Your task to perform on an android device: change the upload size in google photos Image 0: 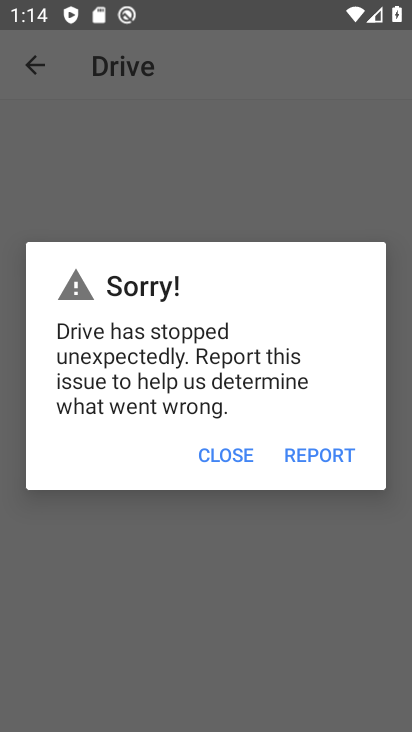
Step 0: press home button
Your task to perform on an android device: change the upload size in google photos Image 1: 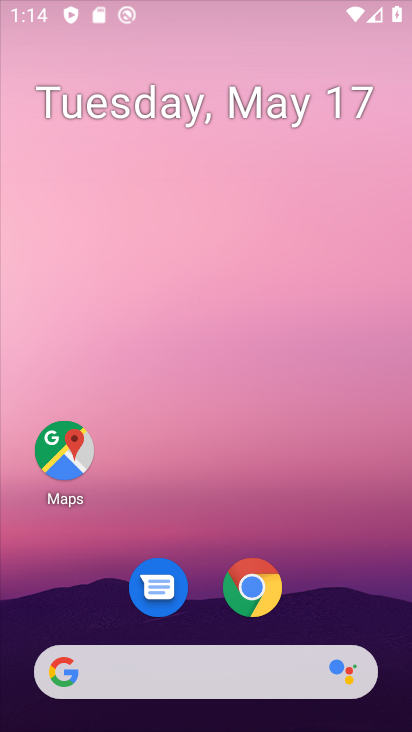
Step 1: drag from (379, 603) to (321, 181)
Your task to perform on an android device: change the upload size in google photos Image 2: 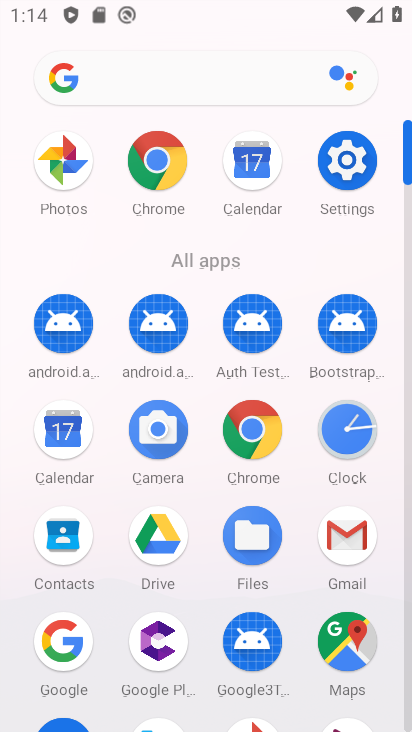
Step 2: drag from (136, 581) to (121, 352)
Your task to perform on an android device: change the upload size in google photos Image 3: 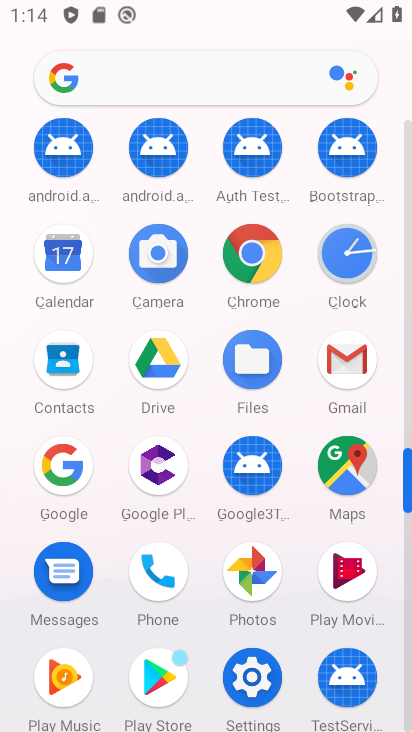
Step 3: click (242, 574)
Your task to perform on an android device: change the upload size in google photos Image 4: 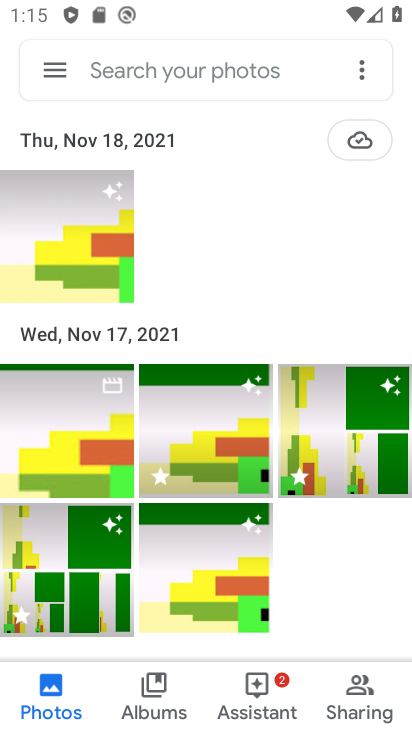
Step 4: click (55, 75)
Your task to perform on an android device: change the upload size in google photos Image 5: 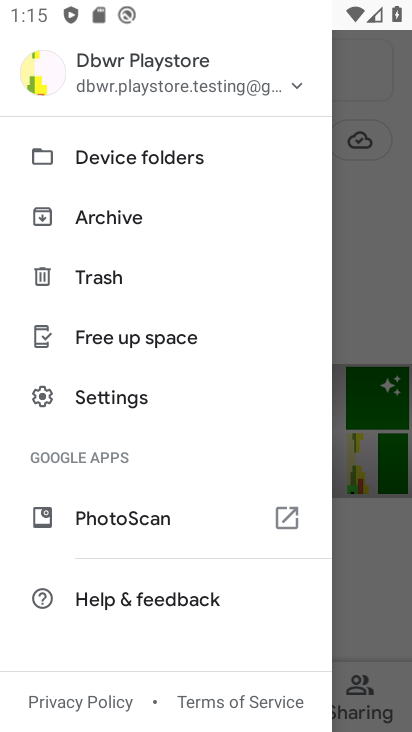
Step 5: click (166, 399)
Your task to perform on an android device: change the upload size in google photos Image 6: 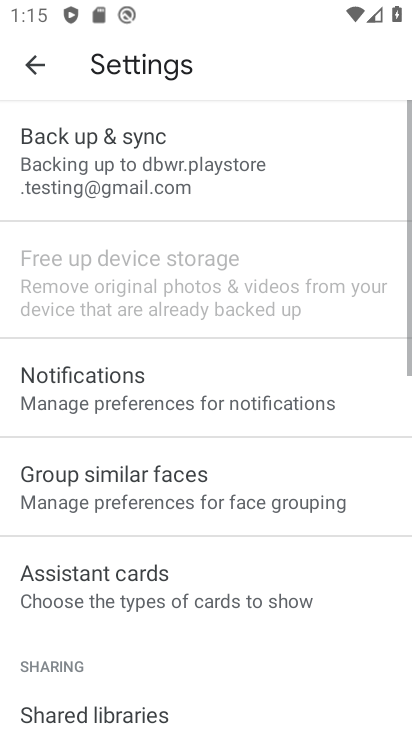
Step 6: click (126, 176)
Your task to perform on an android device: change the upload size in google photos Image 7: 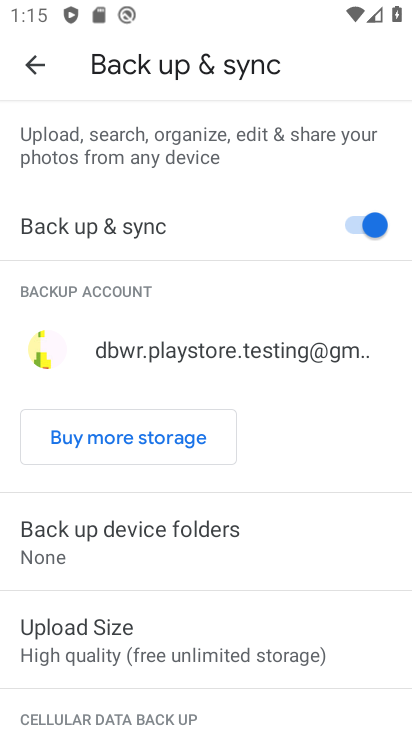
Step 7: click (123, 619)
Your task to perform on an android device: change the upload size in google photos Image 8: 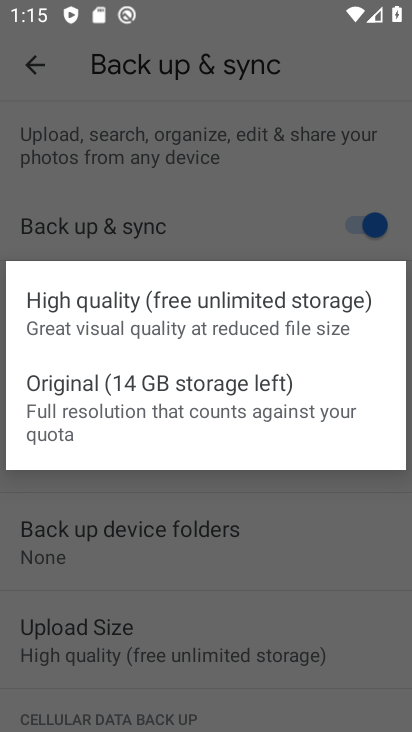
Step 8: click (149, 409)
Your task to perform on an android device: change the upload size in google photos Image 9: 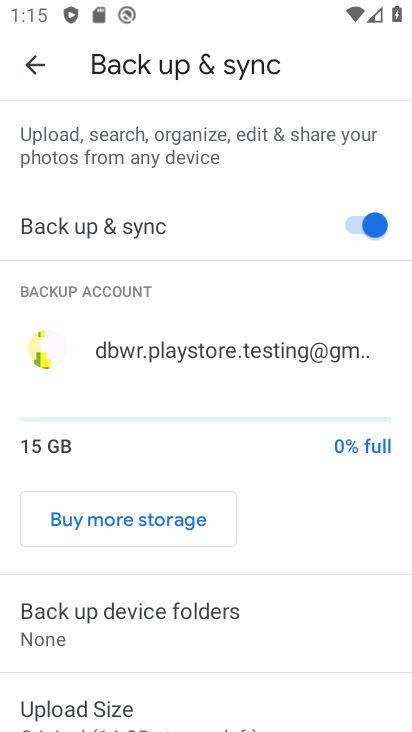
Step 9: task complete